Your task to perform on an android device: Search for sushi restaurants on Maps Image 0: 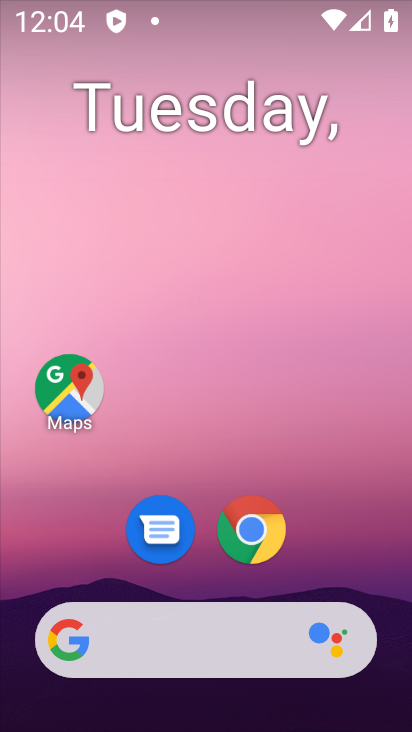
Step 0: click (61, 375)
Your task to perform on an android device: Search for sushi restaurants on Maps Image 1: 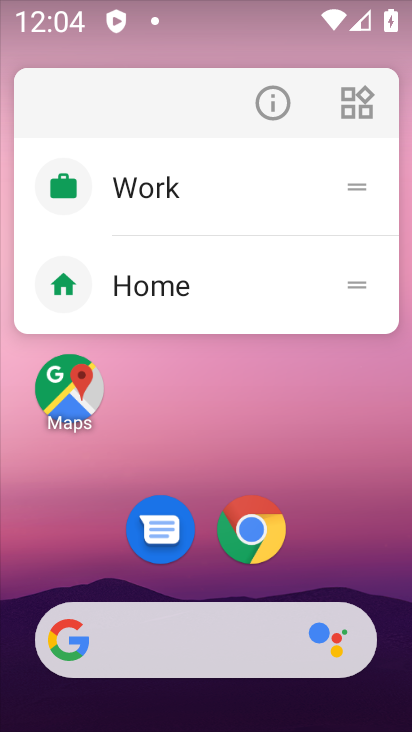
Step 1: click (66, 388)
Your task to perform on an android device: Search for sushi restaurants on Maps Image 2: 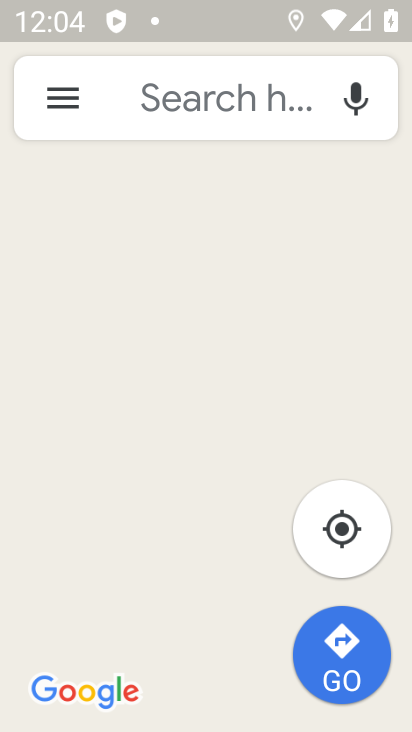
Step 2: click (200, 107)
Your task to perform on an android device: Search for sushi restaurants on Maps Image 3: 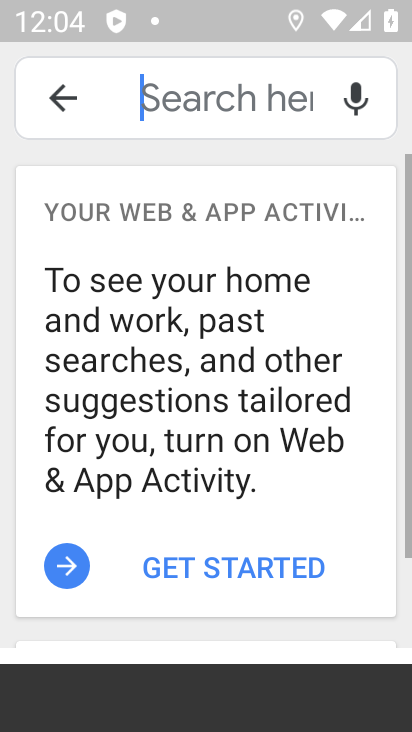
Step 3: click (160, 89)
Your task to perform on an android device: Search for sushi restaurants on Maps Image 4: 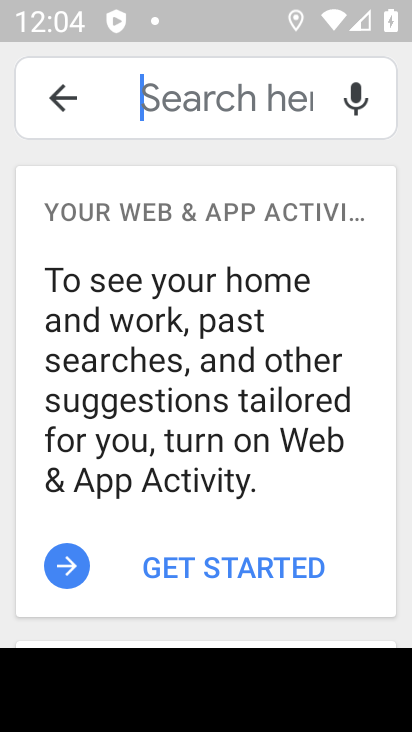
Step 4: drag from (172, 523) to (249, 116)
Your task to perform on an android device: Search for sushi restaurants on Maps Image 5: 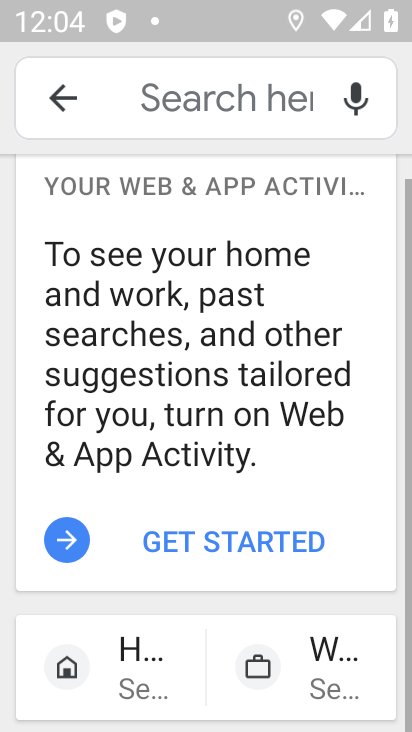
Step 5: click (170, 107)
Your task to perform on an android device: Search for sushi restaurants on Maps Image 6: 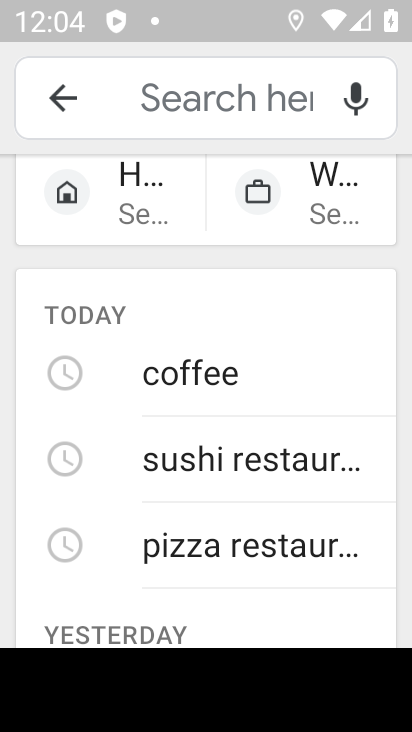
Step 6: type "su"
Your task to perform on an android device: Search for sushi restaurants on Maps Image 7: 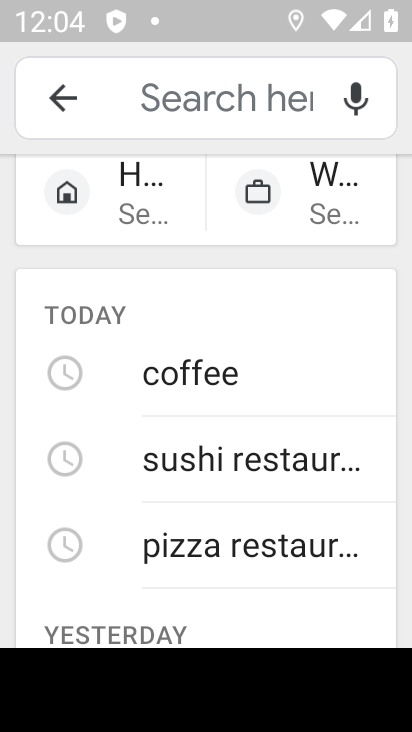
Step 7: click (267, 439)
Your task to perform on an android device: Search for sushi restaurants on Maps Image 8: 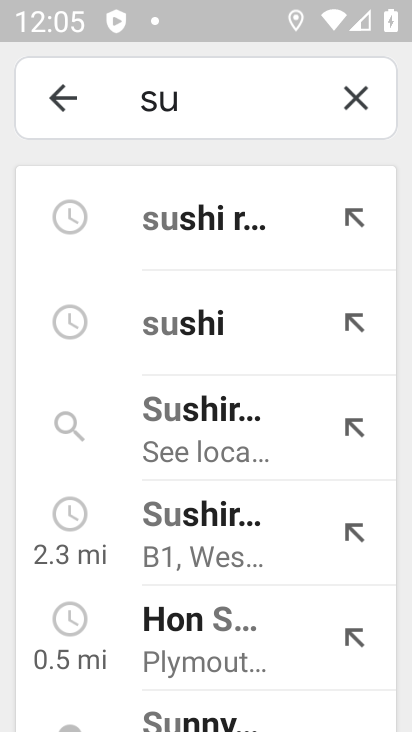
Step 8: click (196, 214)
Your task to perform on an android device: Search for sushi restaurants on Maps Image 9: 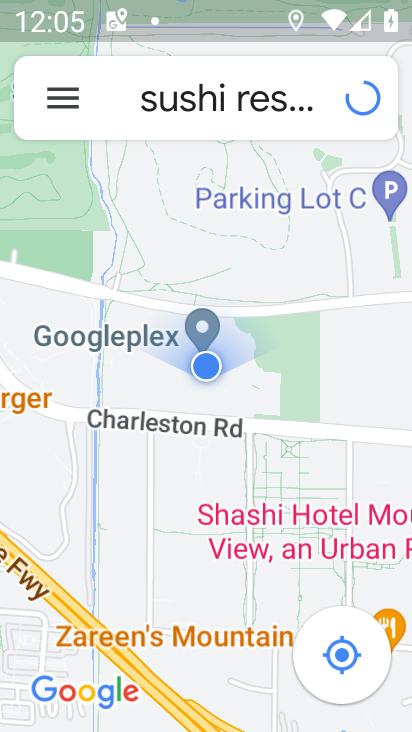
Step 9: task complete